Your task to perform on an android device: add a label to a message in the gmail app Image 0: 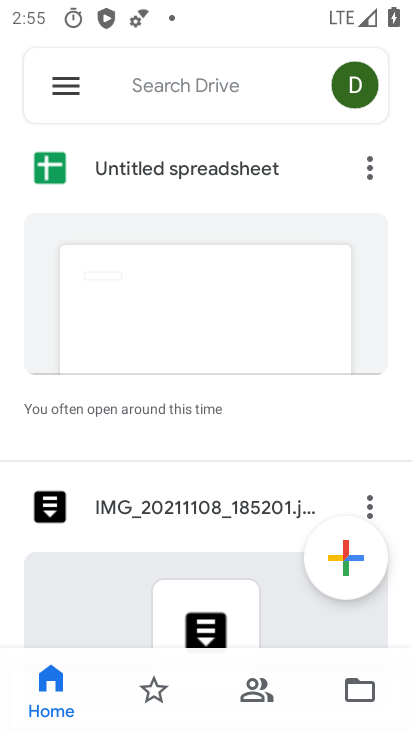
Step 0: press home button
Your task to perform on an android device: add a label to a message in the gmail app Image 1: 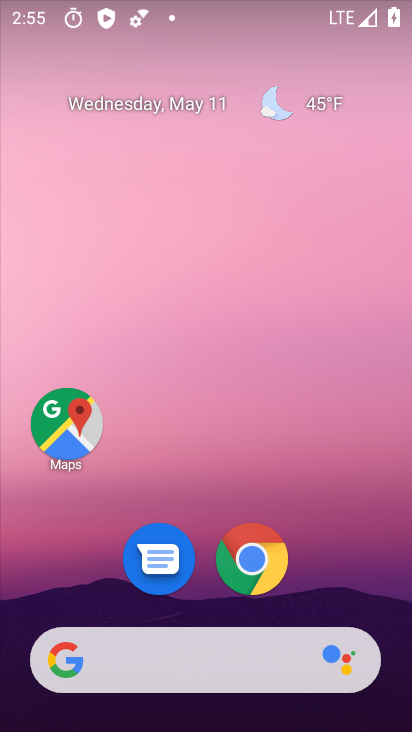
Step 1: drag from (303, 541) to (232, 134)
Your task to perform on an android device: add a label to a message in the gmail app Image 2: 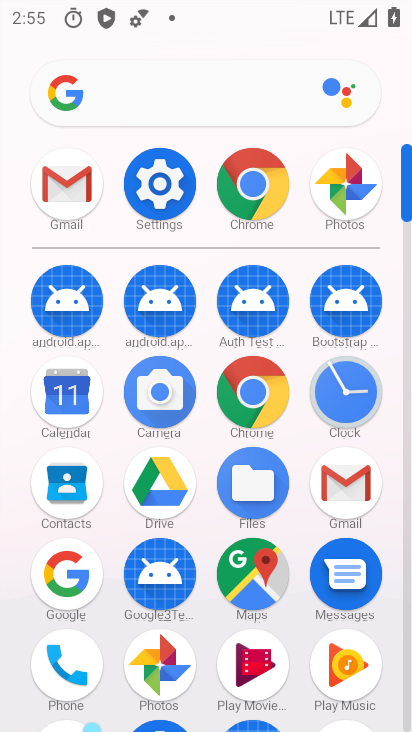
Step 2: click (327, 493)
Your task to perform on an android device: add a label to a message in the gmail app Image 3: 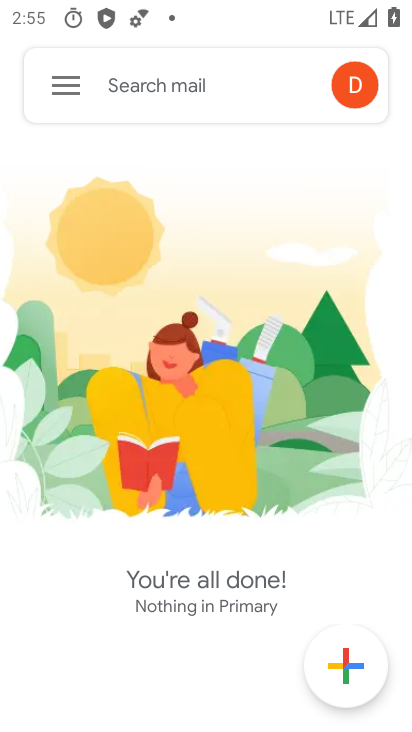
Step 3: click (60, 83)
Your task to perform on an android device: add a label to a message in the gmail app Image 4: 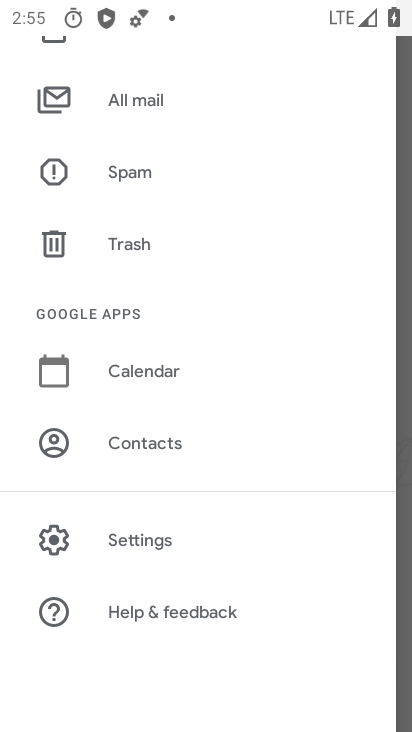
Step 4: click (153, 110)
Your task to perform on an android device: add a label to a message in the gmail app Image 5: 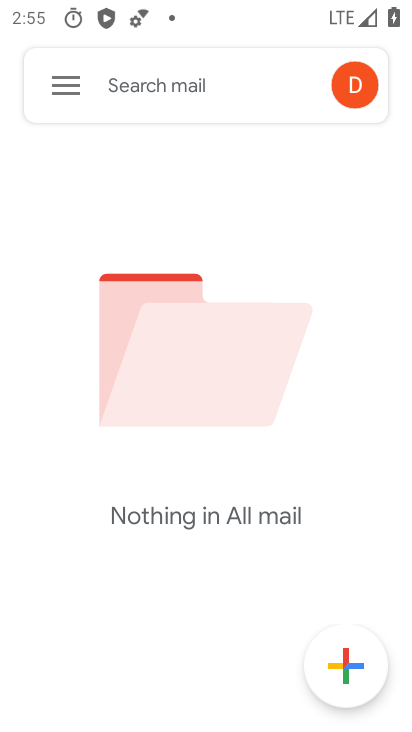
Step 5: task complete